Your task to perform on an android device: move a message to another label in the gmail app Image 0: 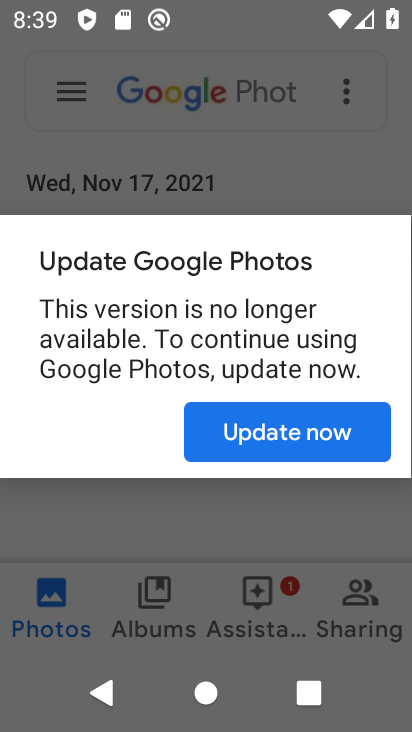
Step 0: press back button
Your task to perform on an android device: move a message to another label in the gmail app Image 1: 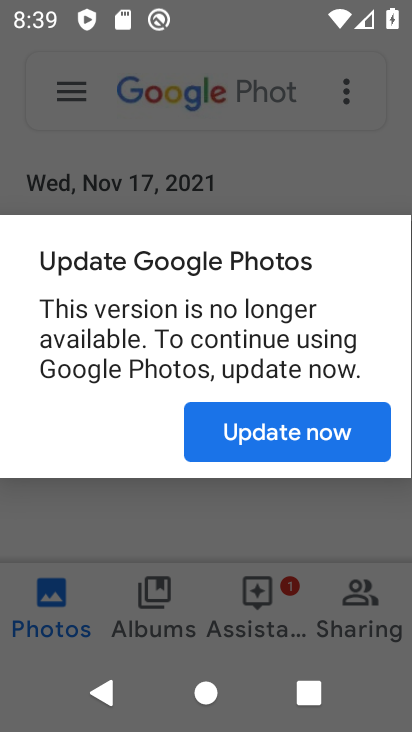
Step 1: press back button
Your task to perform on an android device: move a message to another label in the gmail app Image 2: 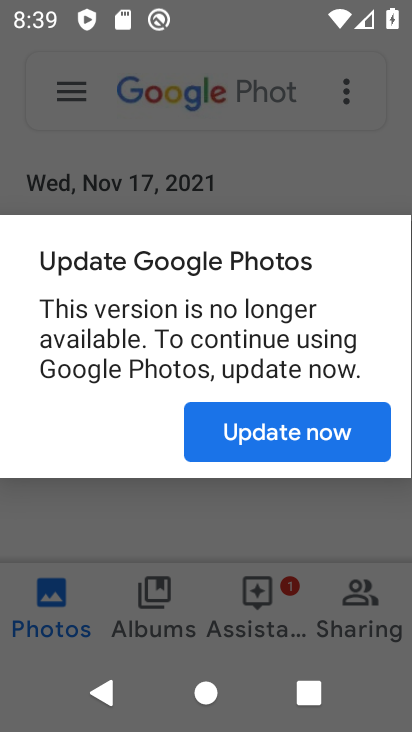
Step 2: press home button
Your task to perform on an android device: move a message to another label in the gmail app Image 3: 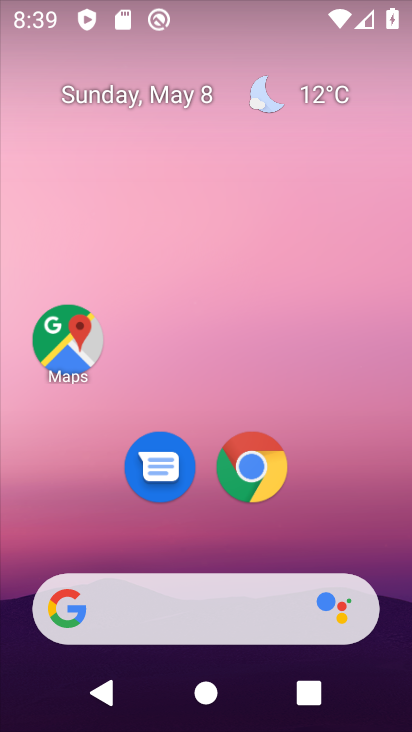
Step 3: drag from (155, 555) to (294, 80)
Your task to perform on an android device: move a message to another label in the gmail app Image 4: 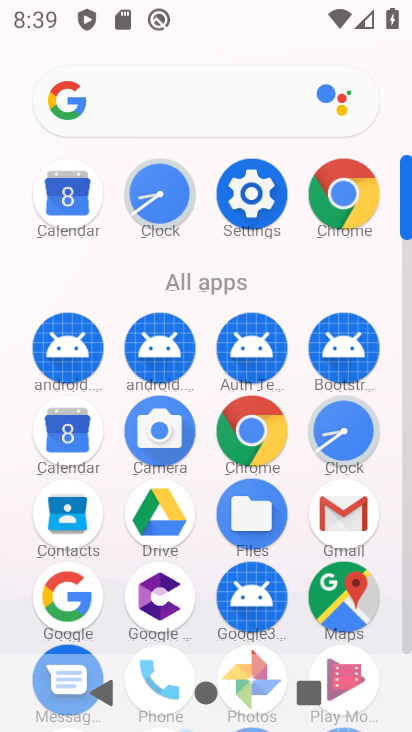
Step 4: click (344, 506)
Your task to perform on an android device: move a message to another label in the gmail app Image 5: 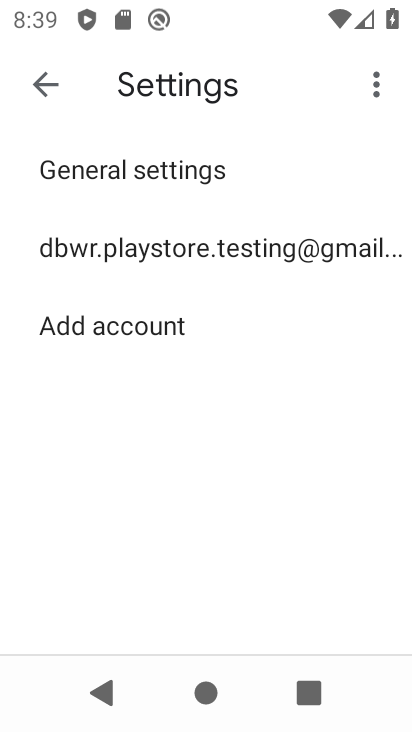
Step 5: click (287, 241)
Your task to perform on an android device: move a message to another label in the gmail app Image 6: 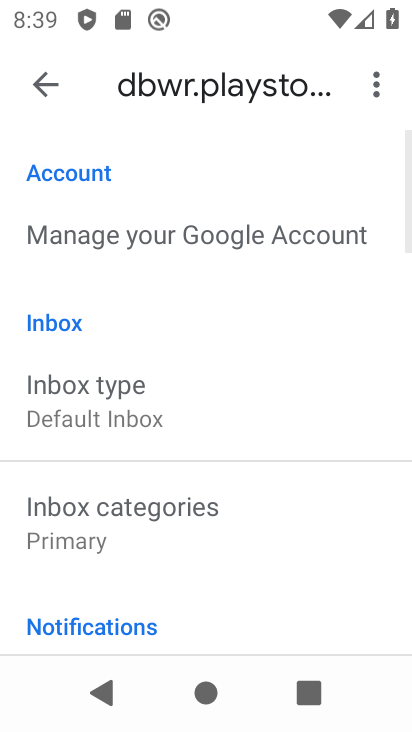
Step 6: click (50, 83)
Your task to perform on an android device: move a message to another label in the gmail app Image 7: 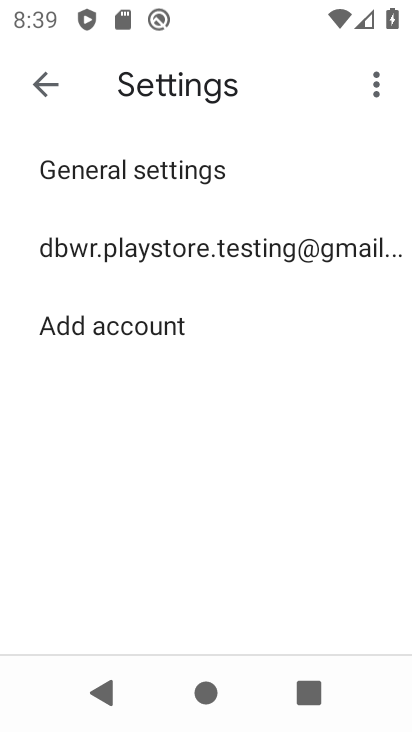
Step 7: click (50, 79)
Your task to perform on an android device: move a message to another label in the gmail app Image 8: 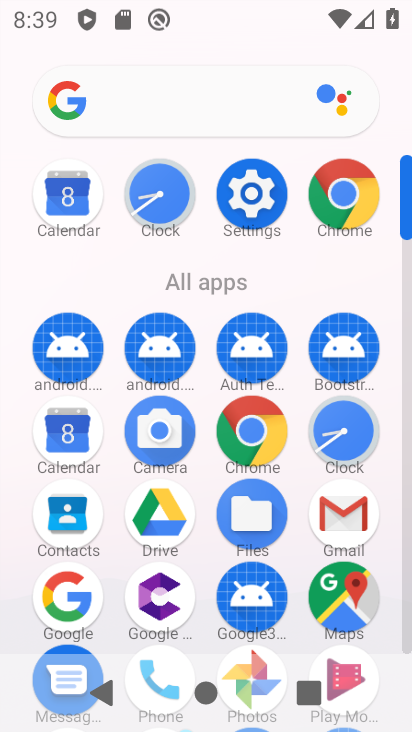
Step 8: click (338, 509)
Your task to perform on an android device: move a message to another label in the gmail app Image 9: 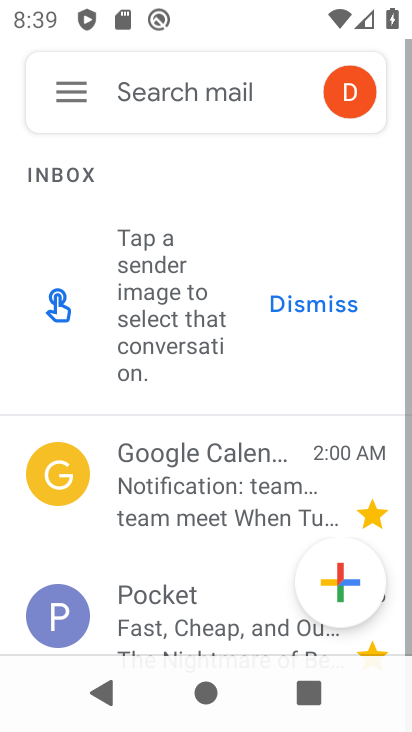
Step 9: drag from (171, 581) to (186, 540)
Your task to perform on an android device: move a message to another label in the gmail app Image 10: 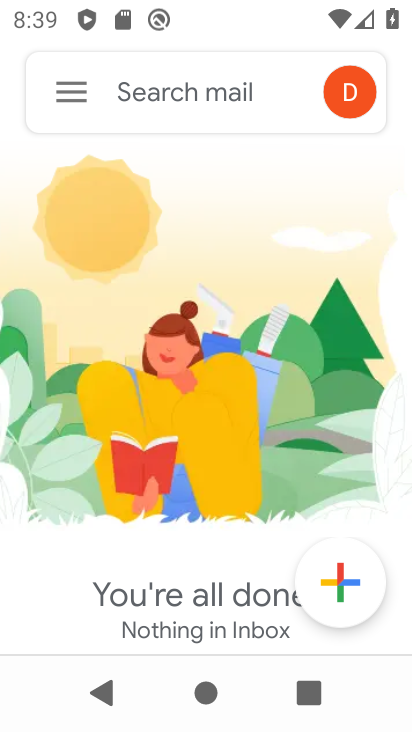
Step 10: click (61, 95)
Your task to perform on an android device: move a message to another label in the gmail app Image 11: 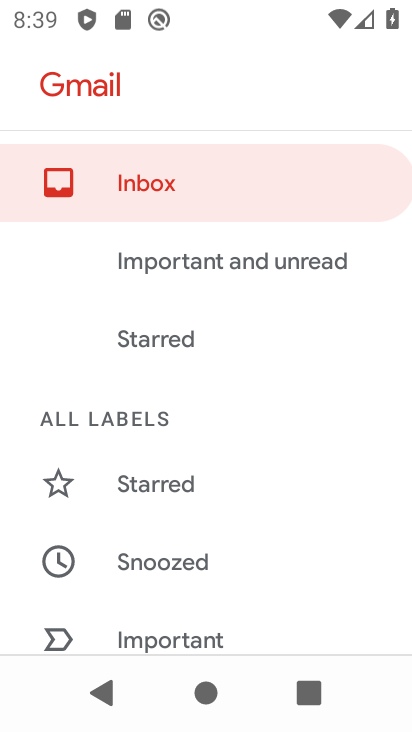
Step 11: drag from (207, 584) to (290, 94)
Your task to perform on an android device: move a message to another label in the gmail app Image 12: 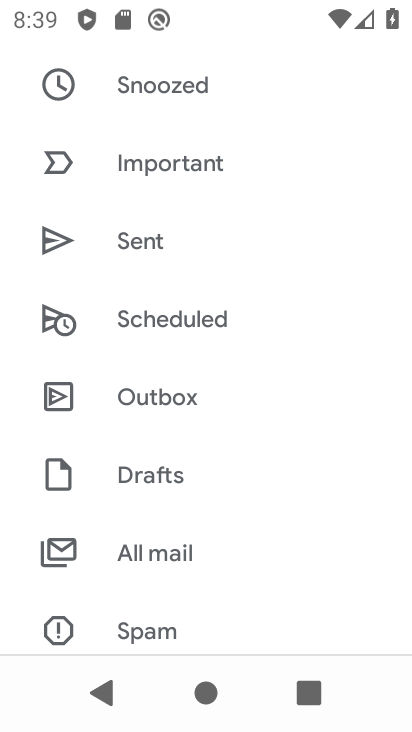
Step 12: click (167, 559)
Your task to perform on an android device: move a message to another label in the gmail app Image 13: 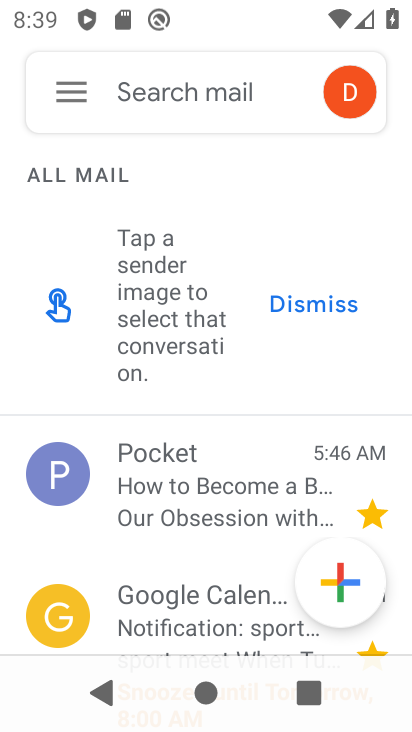
Step 13: drag from (215, 585) to (281, 165)
Your task to perform on an android device: move a message to another label in the gmail app Image 14: 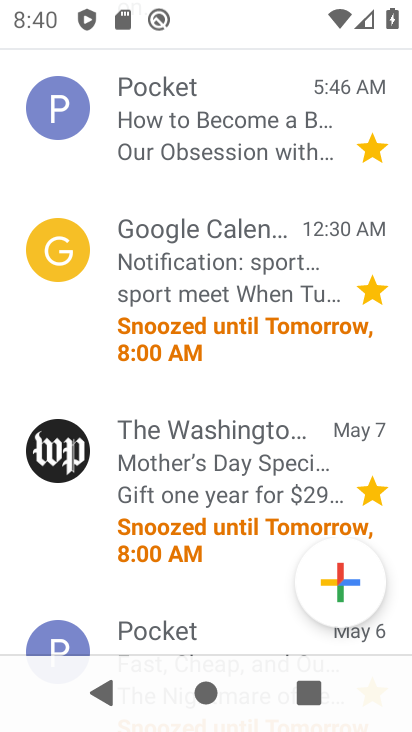
Step 14: drag from (170, 453) to (226, 143)
Your task to perform on an android device: move a message to another label in the gmail app Image 15: 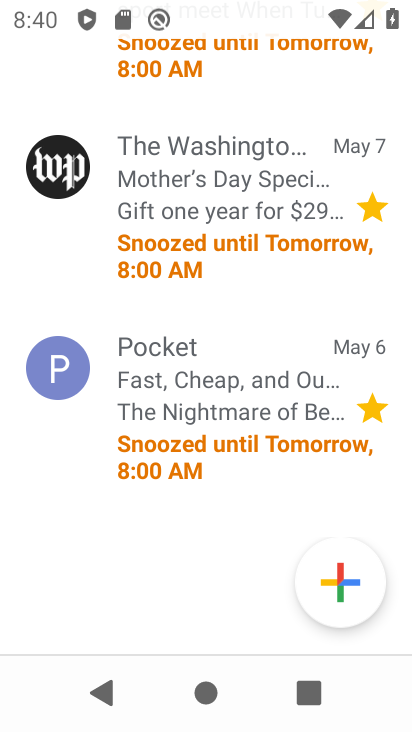
Step 15: click (159, 375)
Your task to perform on an android device: move a message to another label in the gmail app Image 16: 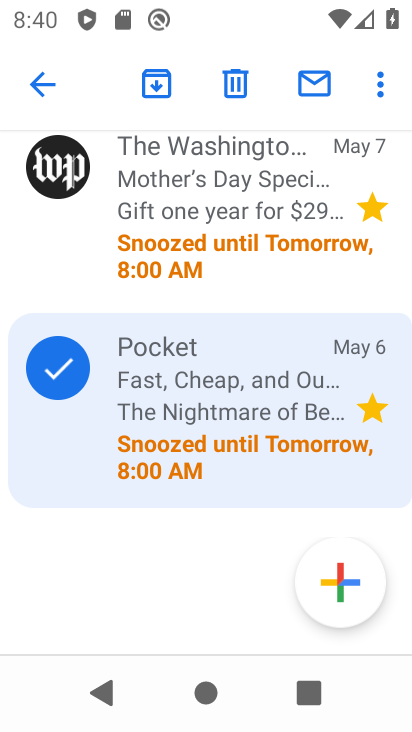
Step 16: click (372, 72)
Your task to perform on an android device: move a message to another label in the gmail app Image 17: 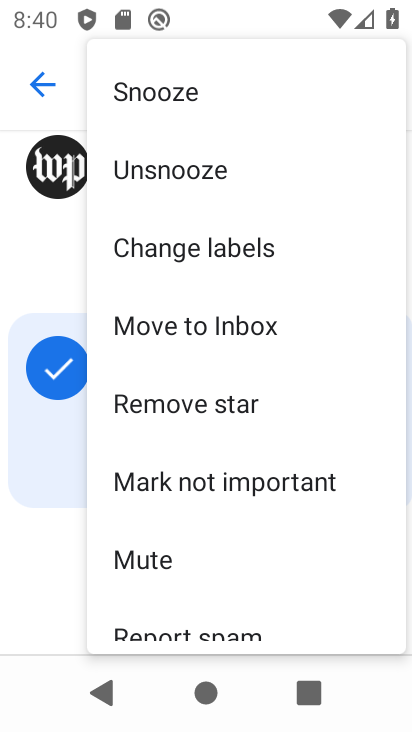
Step 17: click (208, 323)
Your task to perform on an android device: move a message to another label in the gmail app Image 18: 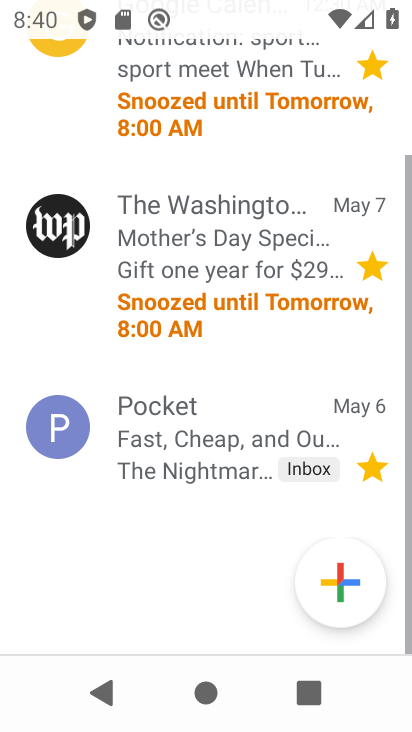
Step 18: task complete